Your task to perform on an android device: change the clock display to show seconds Image 0: 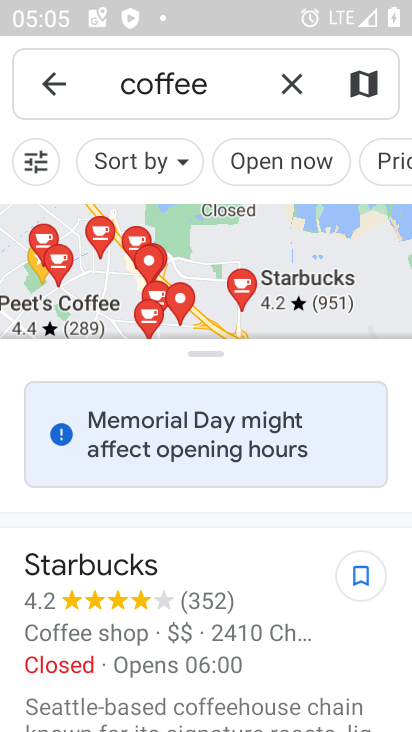
Step 0: press home button
Your task to perform on an android device: change the clock display to show seconds Image 1: 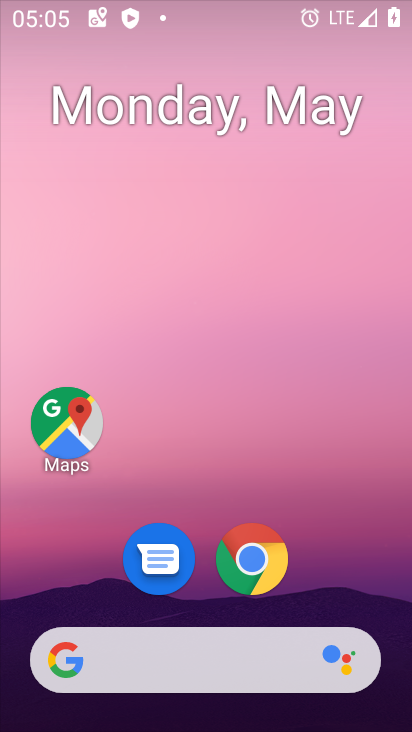
Step 1: drag from (327, 593) to (306, 84)
Your task to perform on an android device: change the clock display to show seconds Image 2: 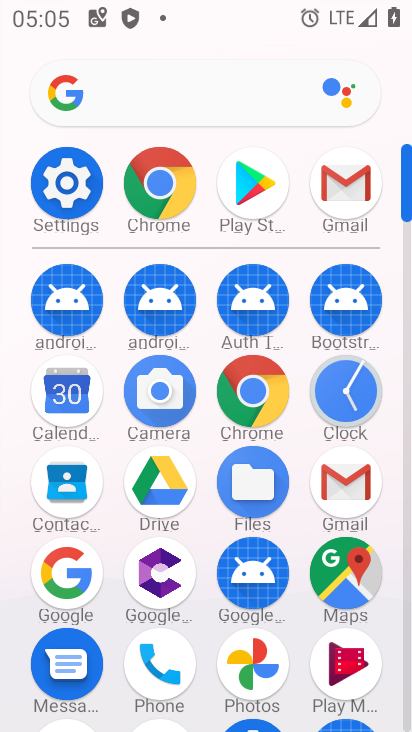
Step 2: click (347, 404)
Your task to perform on an android device: change the clock display to show seconds Image 3: 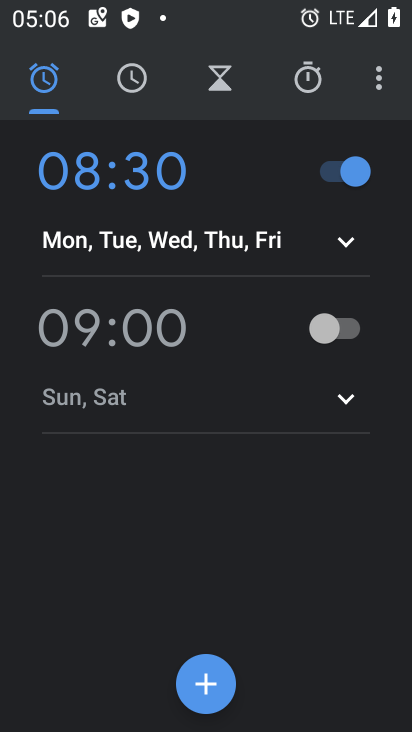
Step 3: click (390, 73)
Your task to perform on an android device: change the clock display to show seconds Image 4: 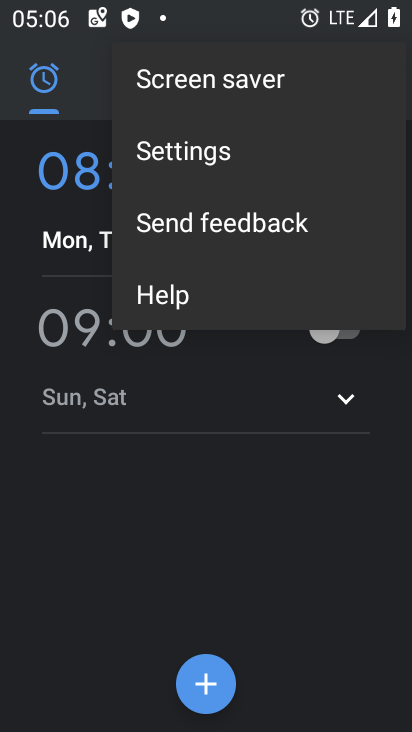
Step 4: click (207, 160)
Your task to perform on an android device: change the clock display to show seconds Image 5: 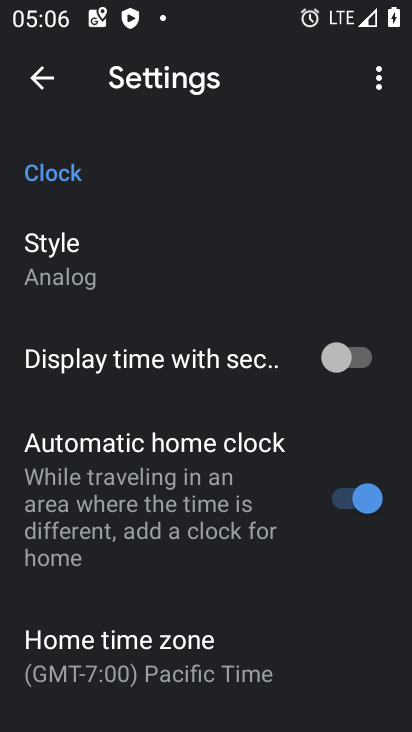
Step 5: click (362, 359)
Your task to perform on an android device: change the clock display to show seconds Image 6: 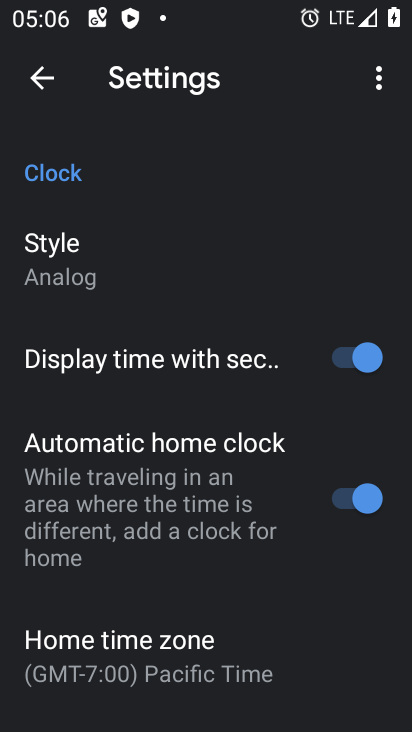
Step 6: task complete